Your task to perform on an android device: snooze an email in the gmail app Image 0: 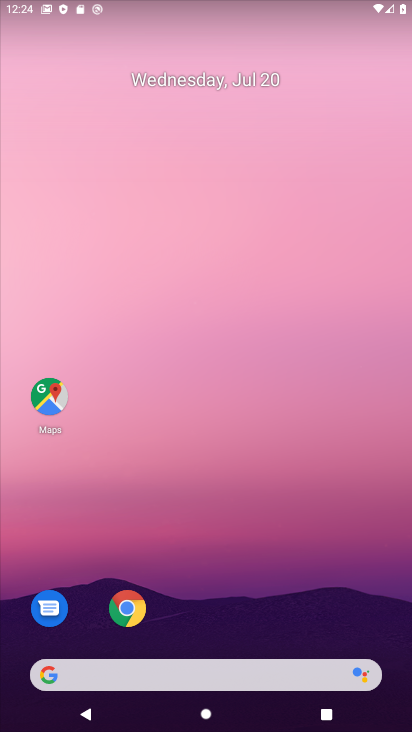
Step 0: drag from (203, 666) to (204, 217)
Your task to perform on an android device: snooze an email in the gmail app Image 1: 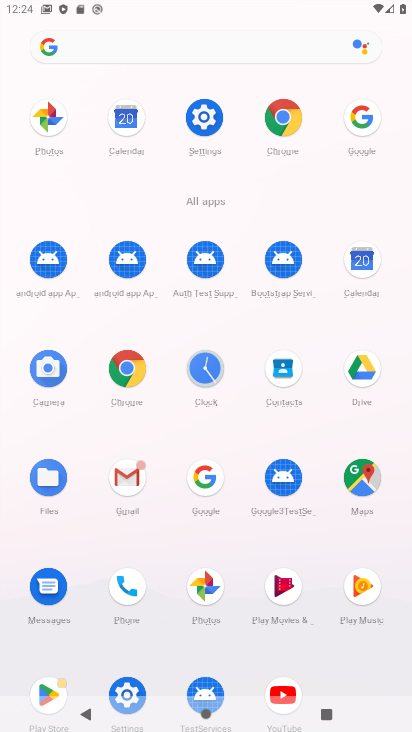
Step 1: click (111, 473)
Your task to perform on an android device: snooze an email in the gmail app Image 2: 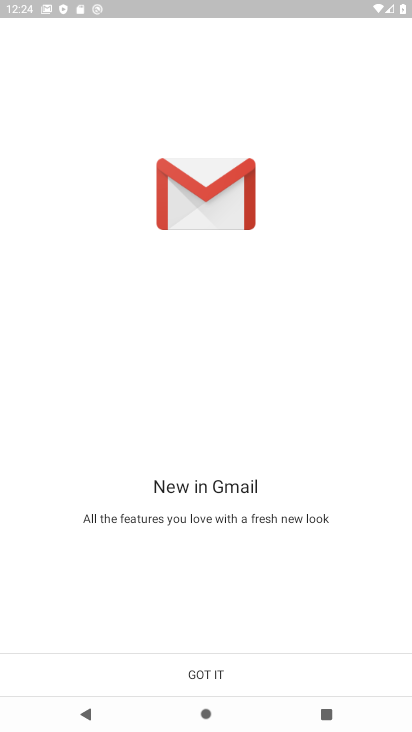
Step 2: click (212, 676)
Your task to perform on an android device: snooze an email in the gmail app Image 3: 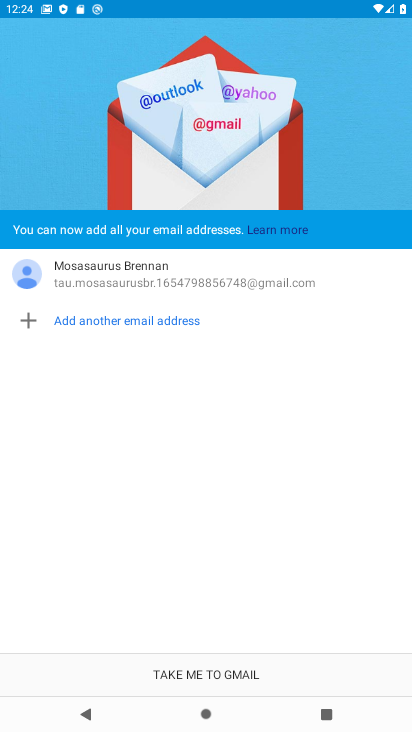
Step 3: click (212, 676)
Your task to perform on an android device: snooze an email in the gmail app Image 4: 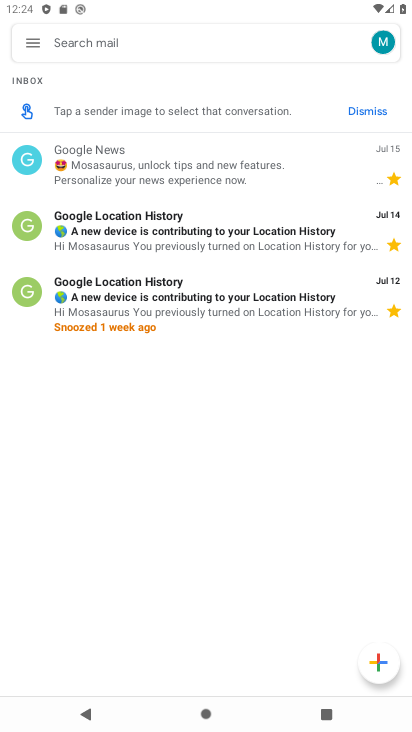
Step 4: click (180, 231)
Your task to perform on an android device: snooze an email in the gmail app Image 5: 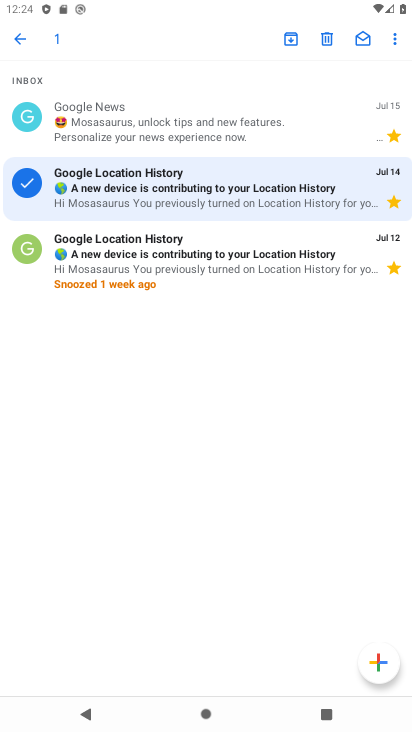
Step 5: click (393, 42)
Your task to perform on an android device: snooze an email in the gmail app Image 6: 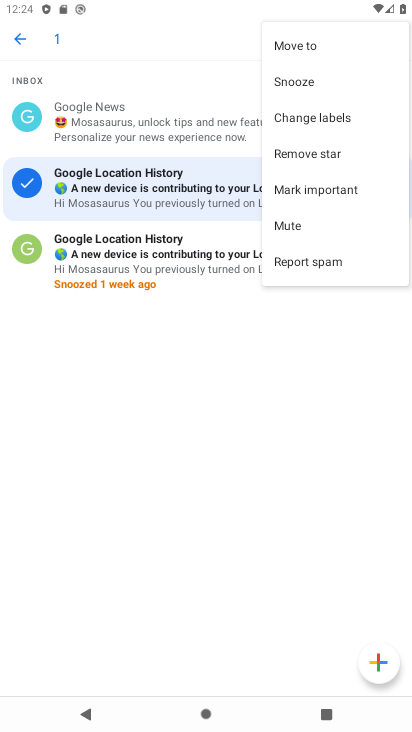
Step 6: click (305, 88)
Your task to perform on an android device: snooze an email in the gmail app Image 7: 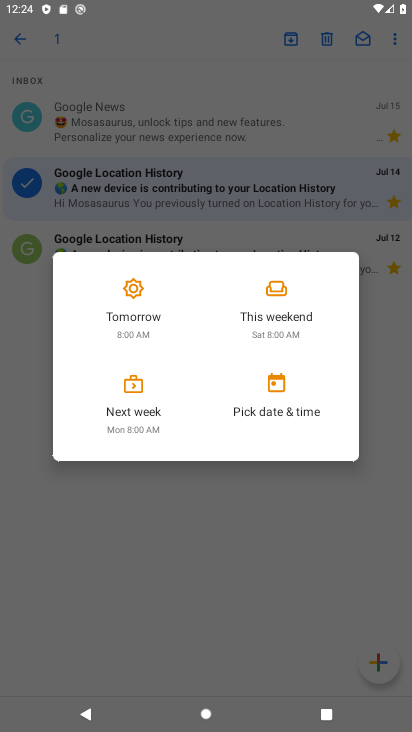
Step 7: click (278, 395)
Your task to perform on an android device: snooze an email in the gmail app Image 8: 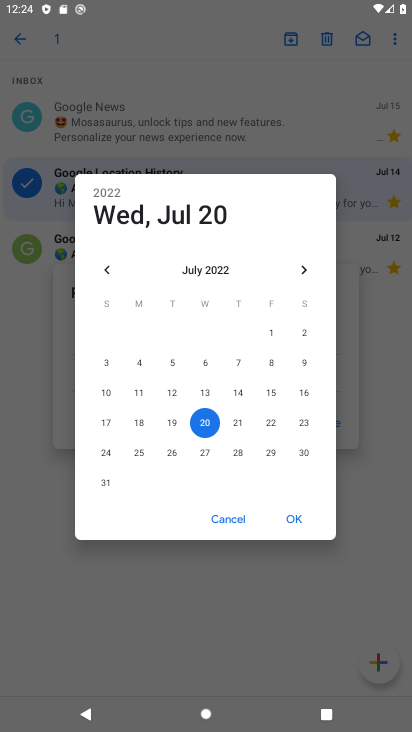
Step 8: click (232, 423)
Your task to perform on an android device: snooze an email in the gmail app Image 9: 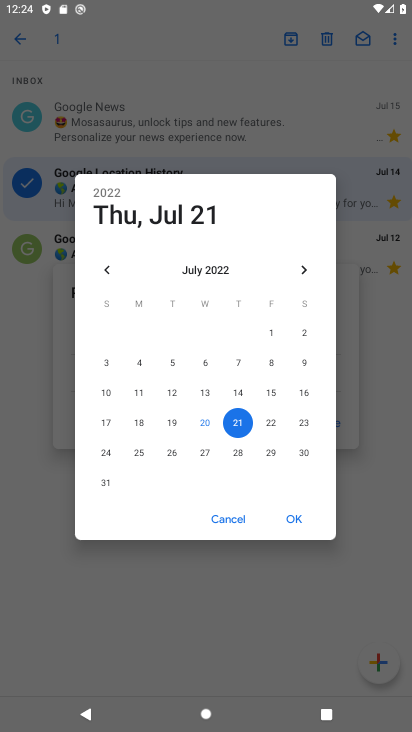
Step 9: click (294, 508)
Your task to perform on an android device: snooze an email in the gmail app Image 10: 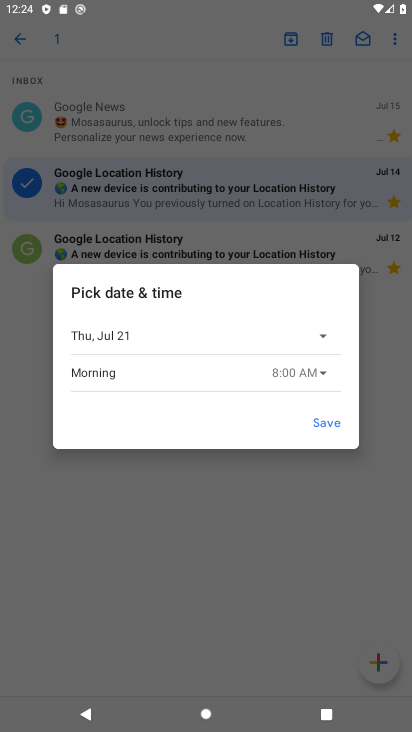
Step 10: click (327, 423)
Your task to perform on an android device: snooze an email in the gmail app Image 11: 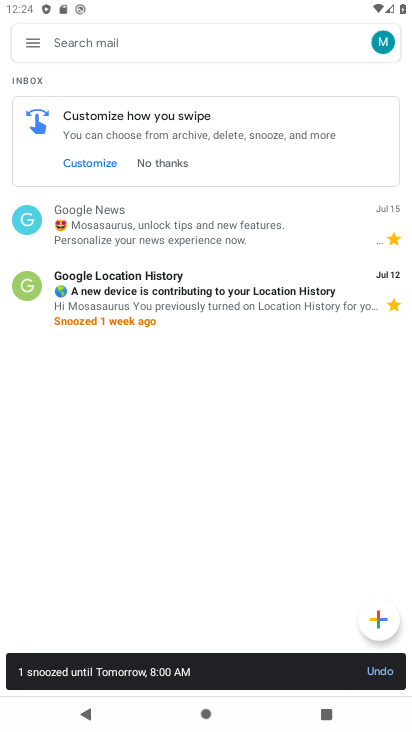
Step 11: task complete